Your task to perform on an android device: show emergency info Image 0: 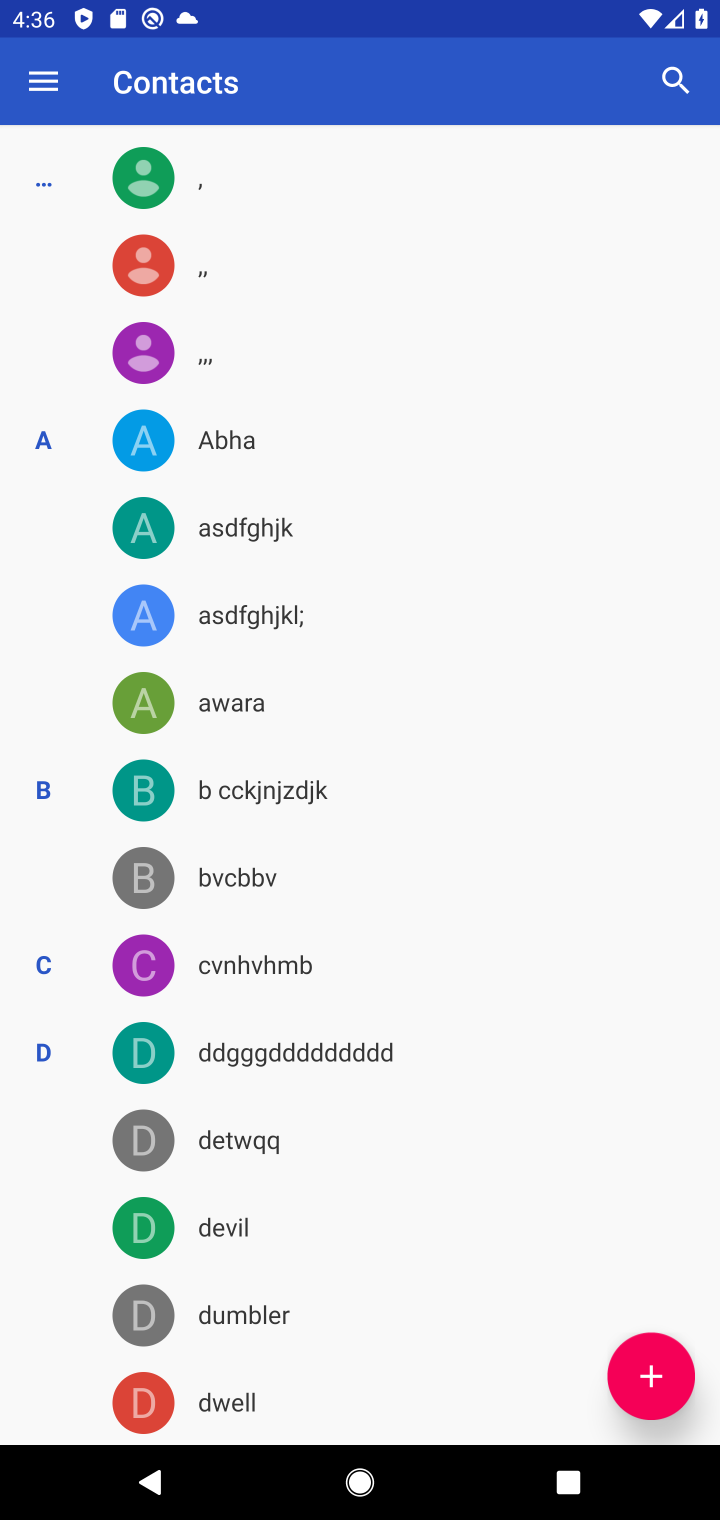
Step 0: press back button
Your task to perform on an android device: show emergency info Image 1: 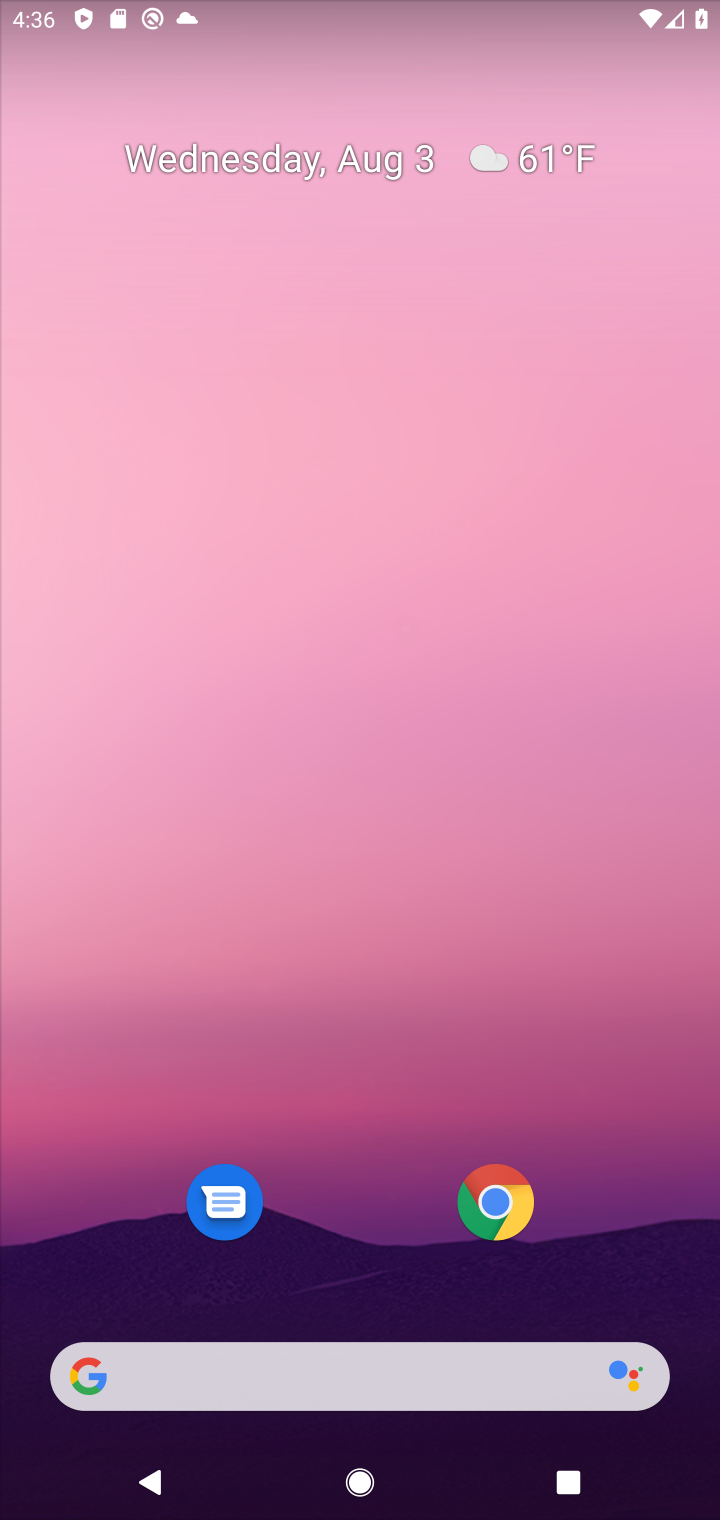
Step 1: drag from (336, 990) to (395, 513)
Your task to perform on an android device: show emergency info Image 2: 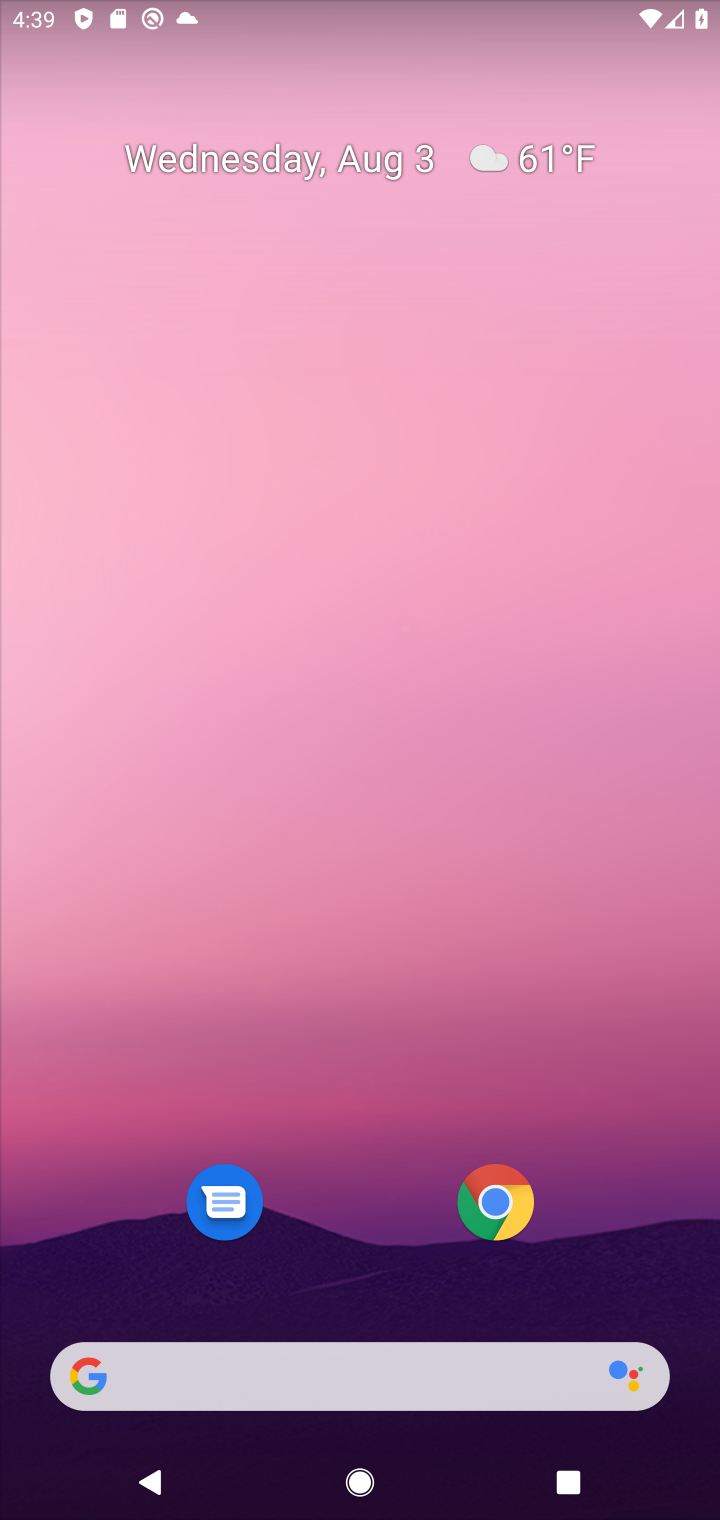
Step 2: drag from (327, 694) to (228, 54)
Your task to perform on an android device: show emergency info Image 3: 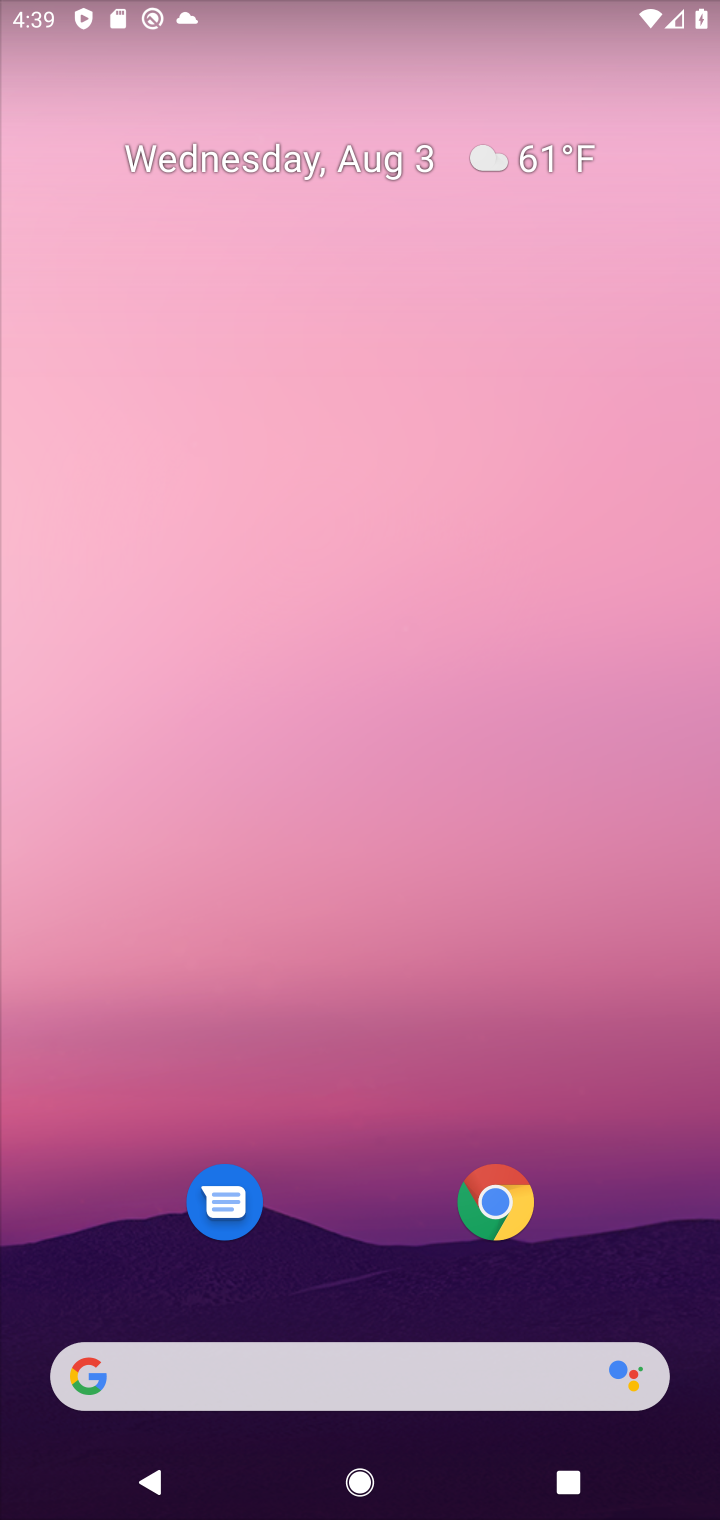
Step 3: drag from (395, 887) to (406, 2)
Your task to perform on an android device: show emergency info Image 4: 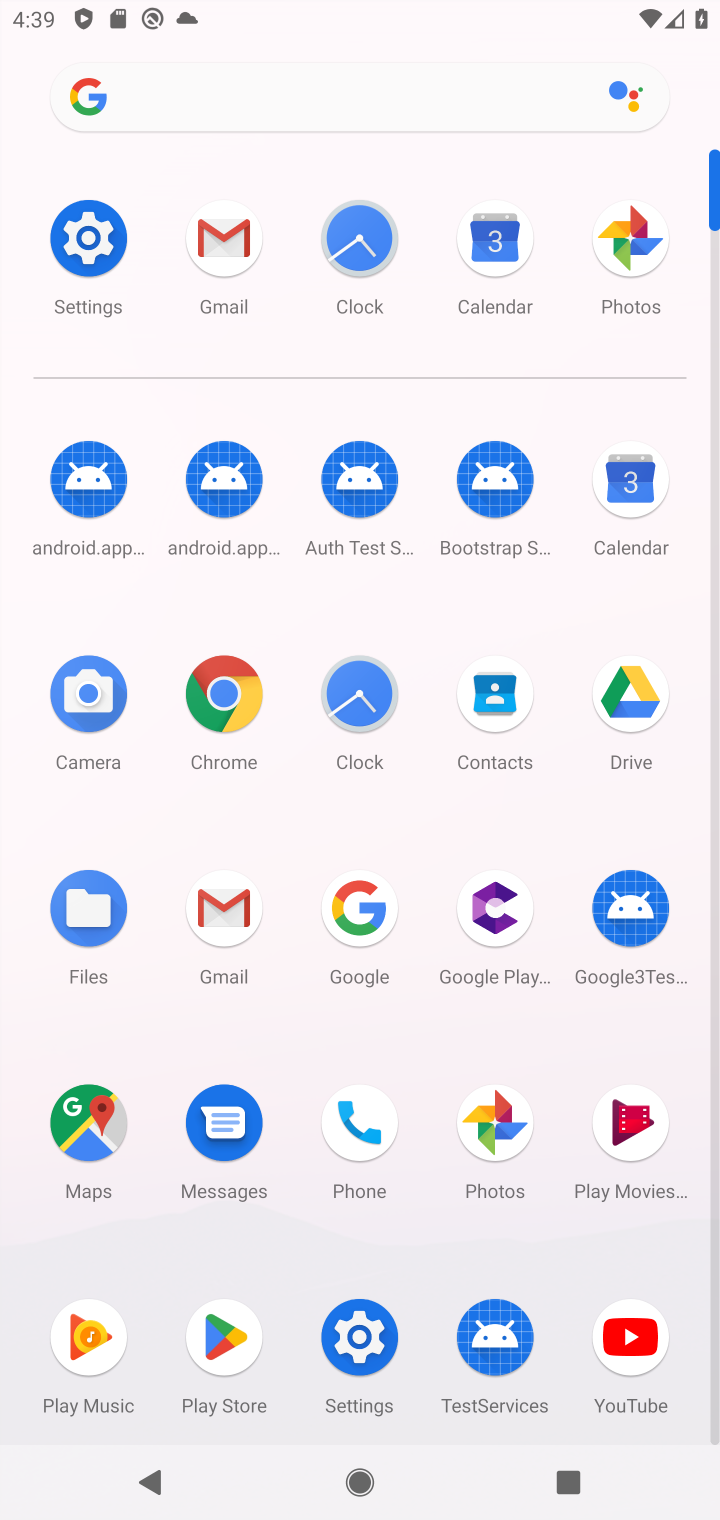
Step 4: click (71, 213)
Your task to perform on an android device: show emergency info Image 5: 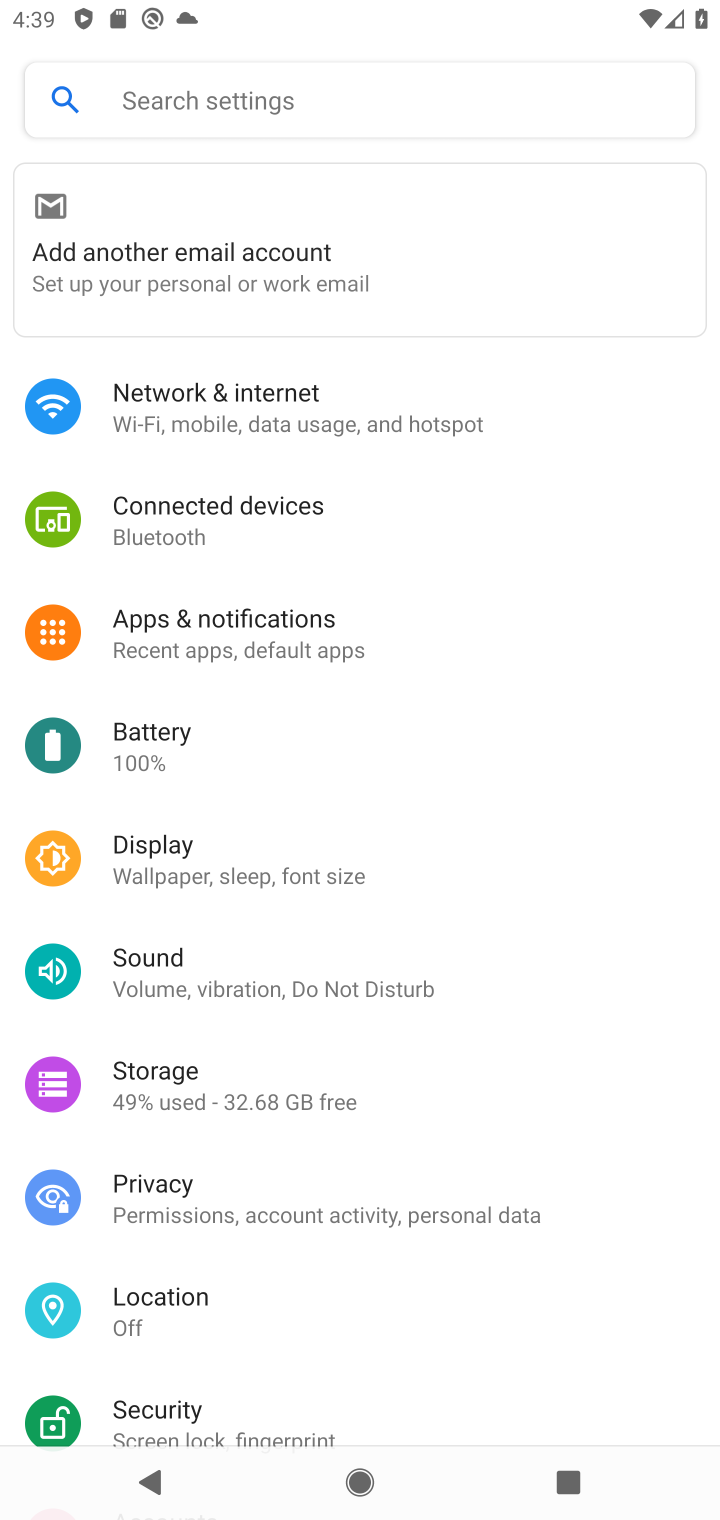
Step 5: drag from (305, 1134) to (458, 58)
Your task to perform on an android device: show emergency info Image 6: 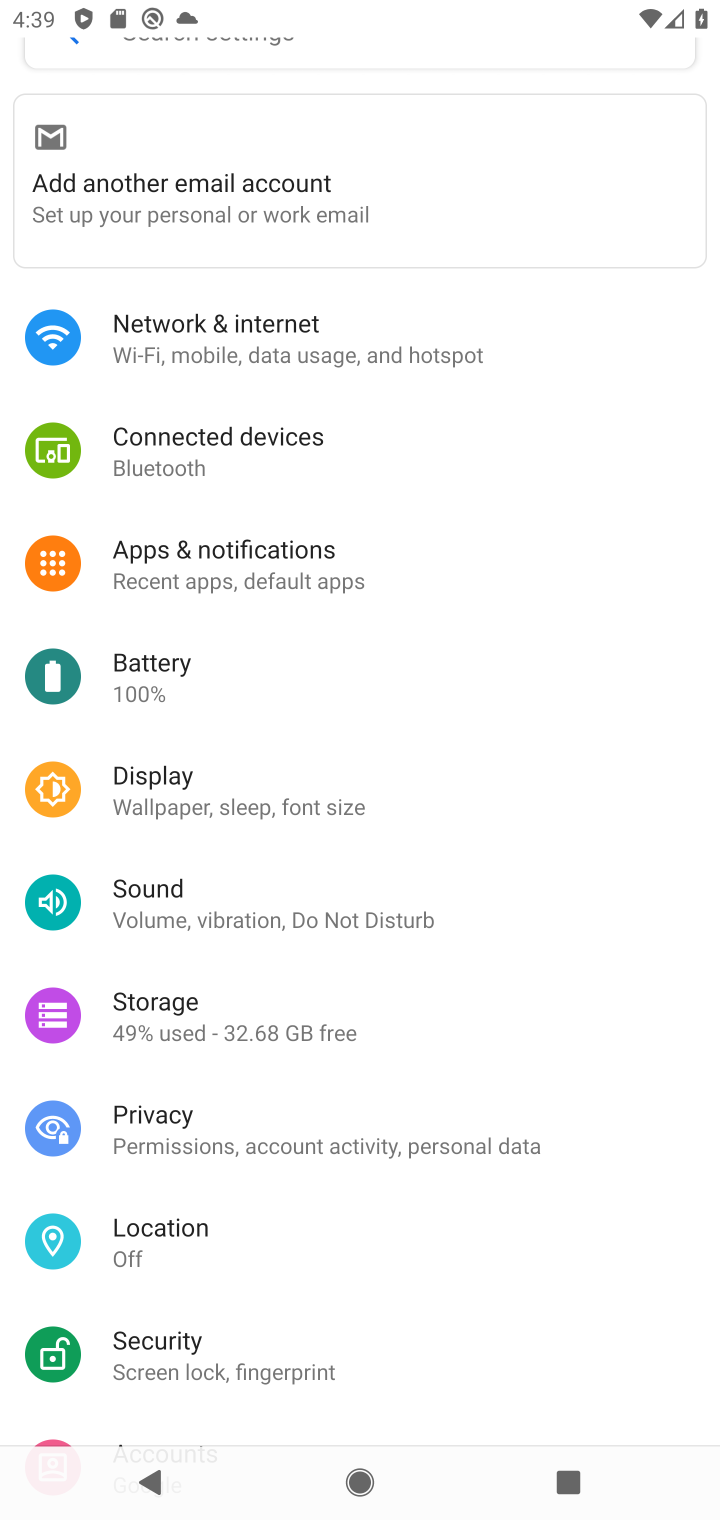
Step 6: drag from (249, 1285) to (449, 51)
Your task to perform on an android device: show emergency info Image 7: 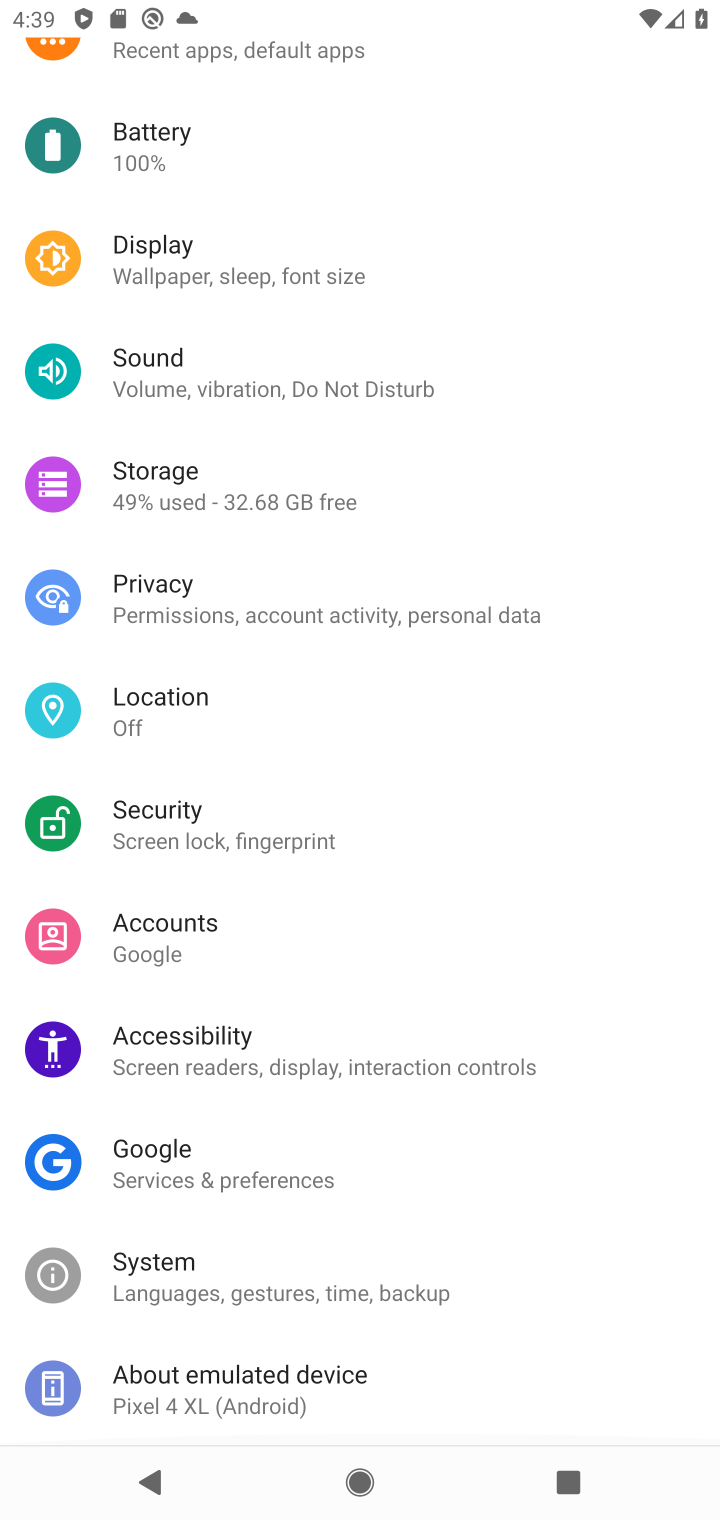
Step 7: drag from (275, 1109) to (452, 95)
Your task to perform on an android device: show emergency info Image 8: 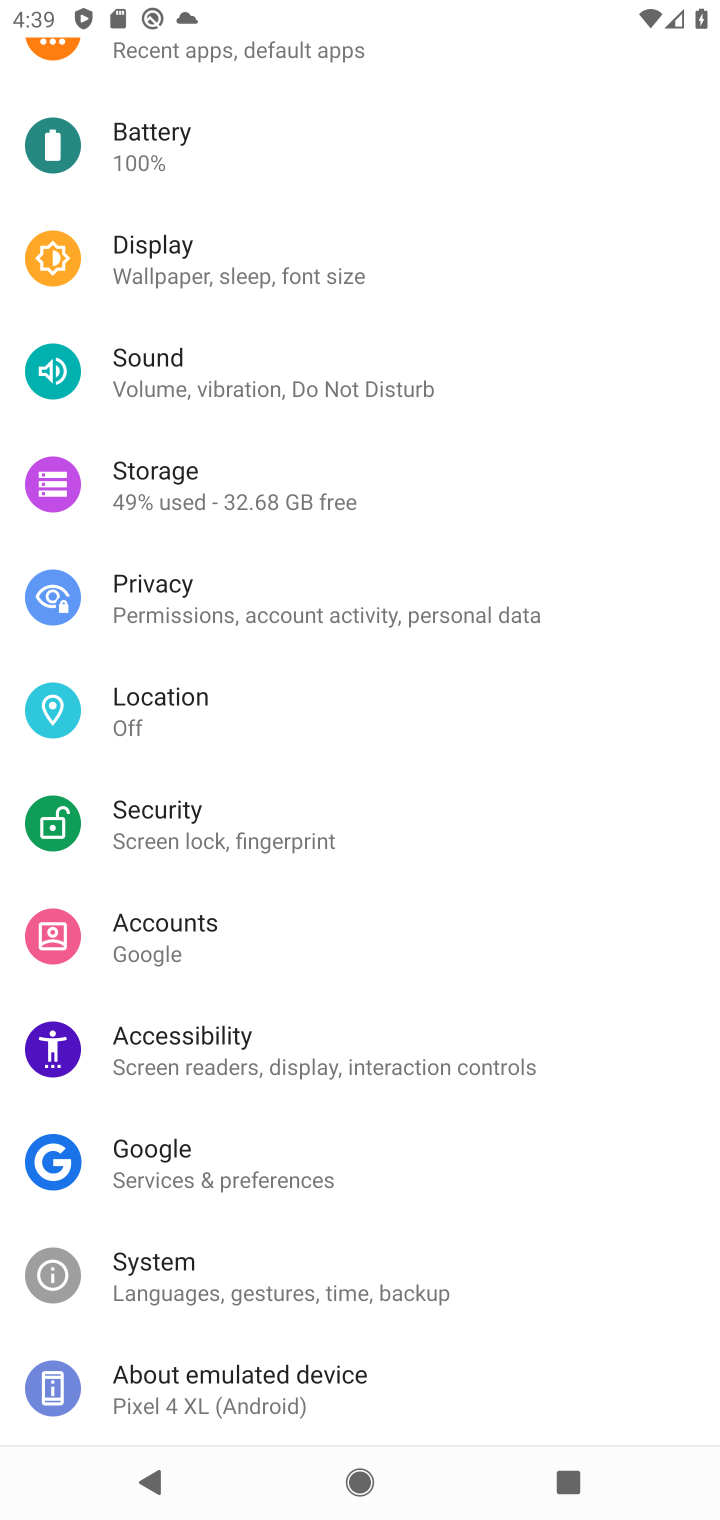
Step 8: click (307, 1406)
Your task to perform on an android device: show emergency info Image 9: 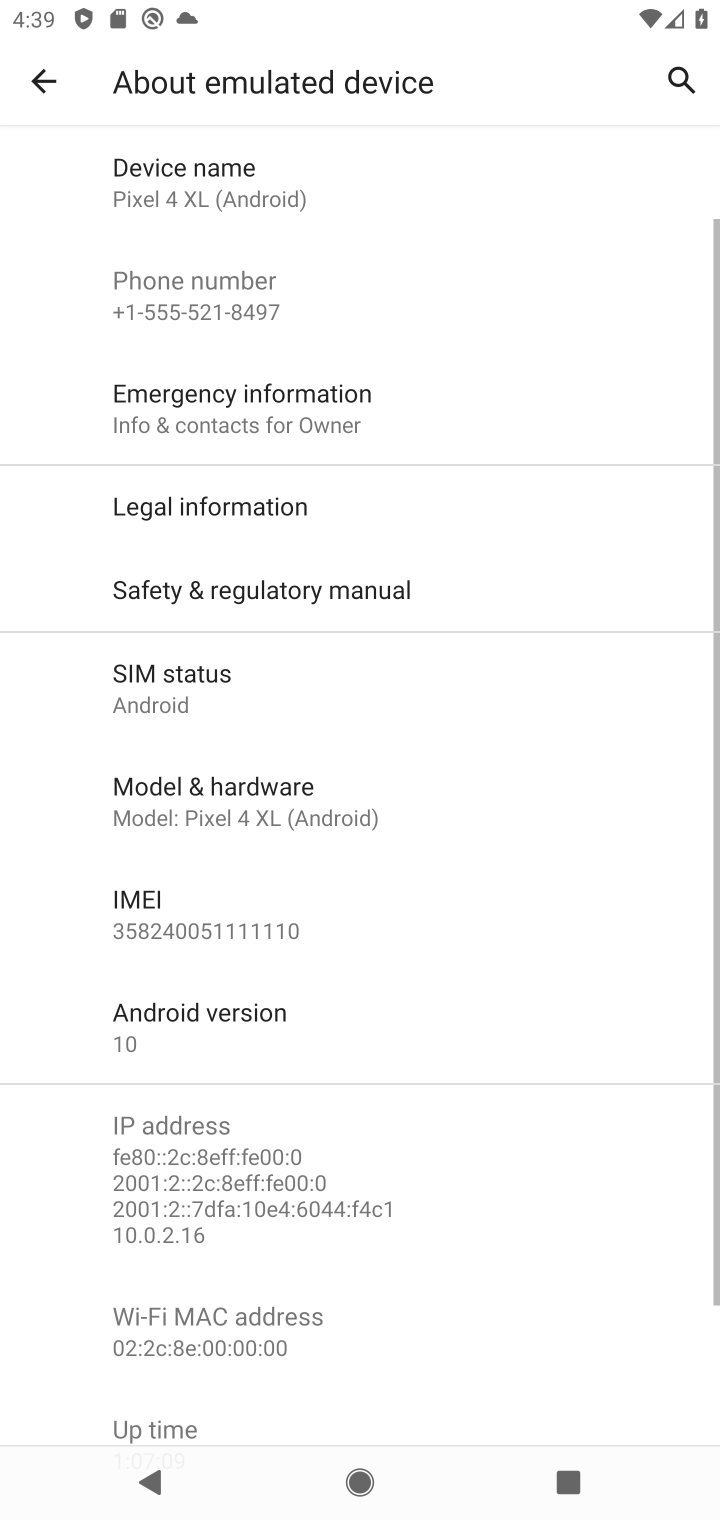
Step 9: click (261, 416)
Your task to perform on an android device: show emergency info Image 10: 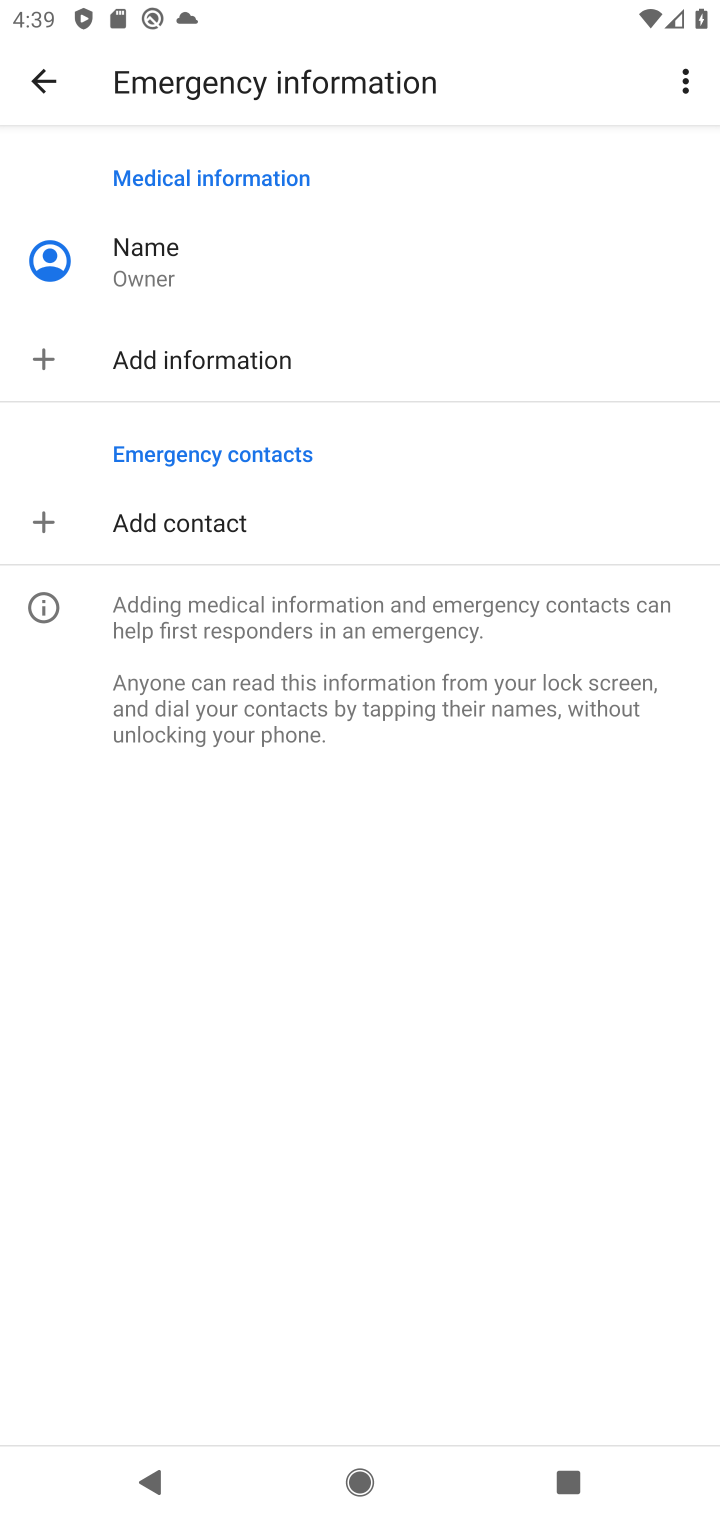
Step 10: task complete